Your task to perform on an android device: turn on location history Image 0: 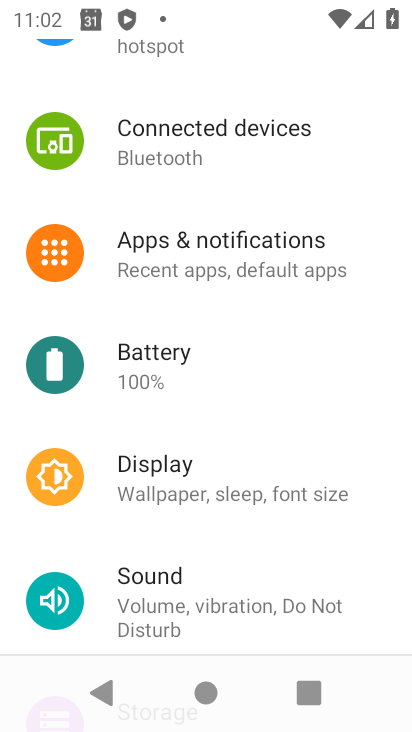
Step 0: press home button
Your task to perform on an android device: turn on location history Image 1: 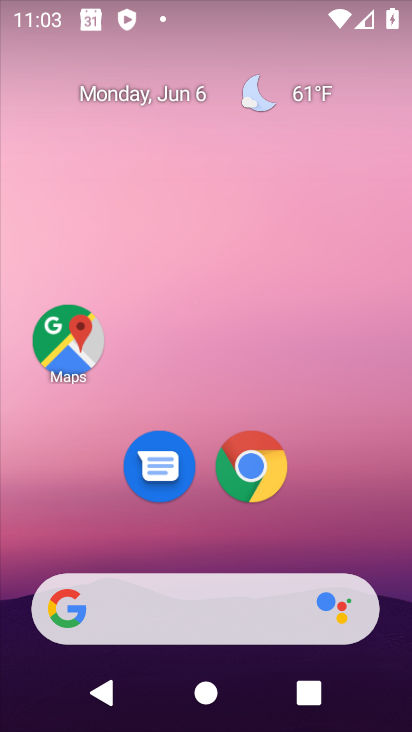
Step 1: click (62, 354)
Your task to perform on an android device: turn on location history Image 2: 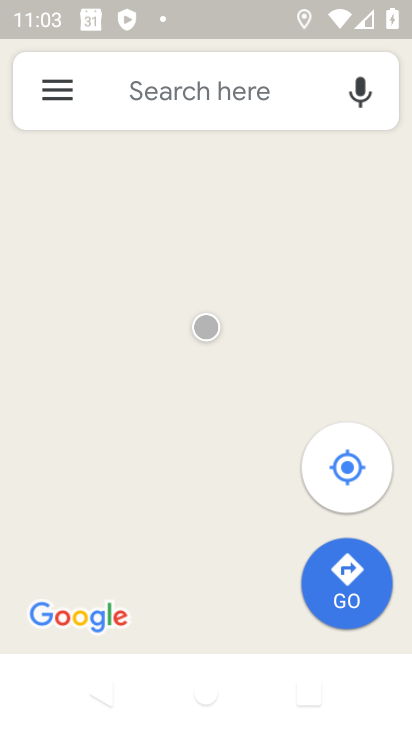
Step 2: click (55, 91)
Your task to perform on an android device: turn on location history Image 3: 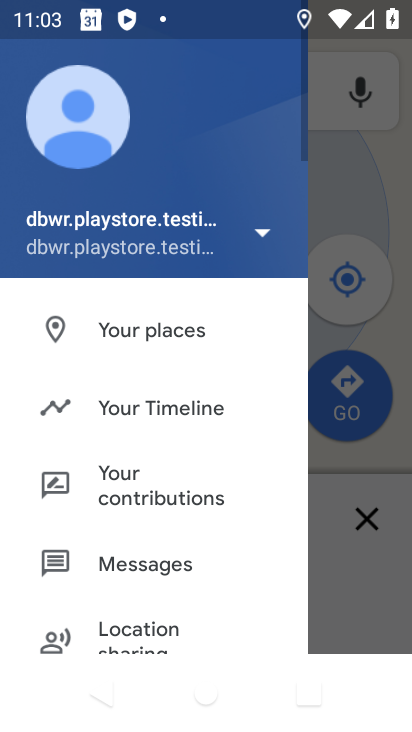
Step 3: click (158, 389)
Your task to perform on an android device: turn on location history Image 4: 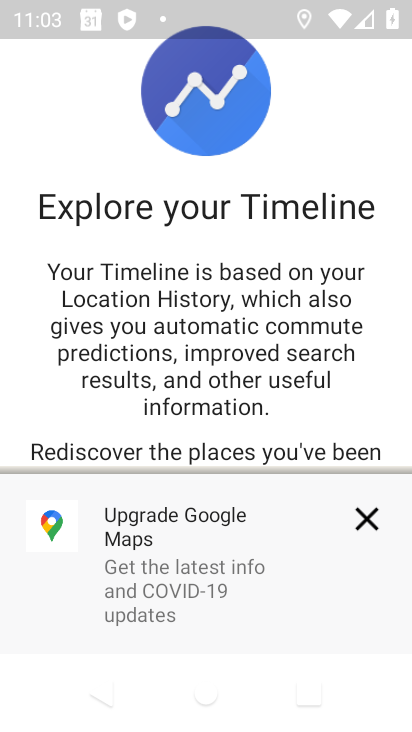
Step 4: click (367, 528)
Your task to perform on an android device: turn on location history Image 5: 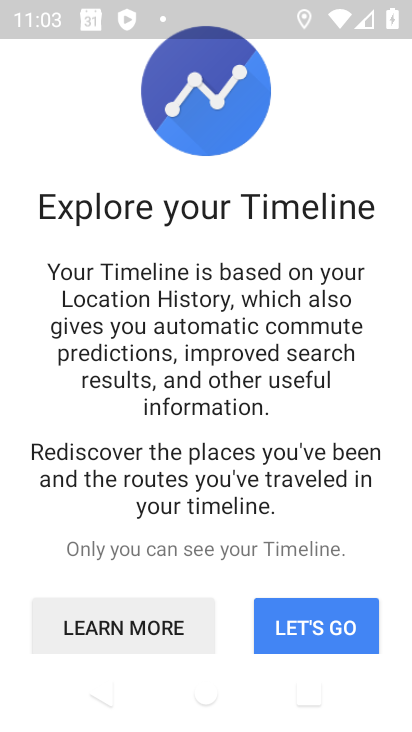
Step 5: click (294, 631)
Your task to perform on an android device: turn on location history Image 6: 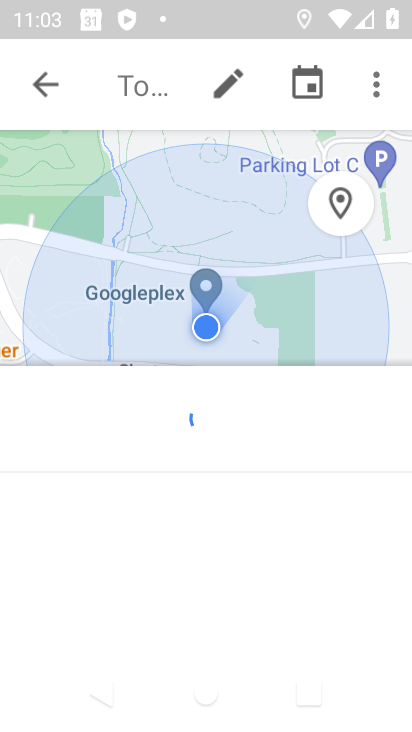
Step 6: click (372, 83)
Your task to perform on an android device: turn on location history Image 7: 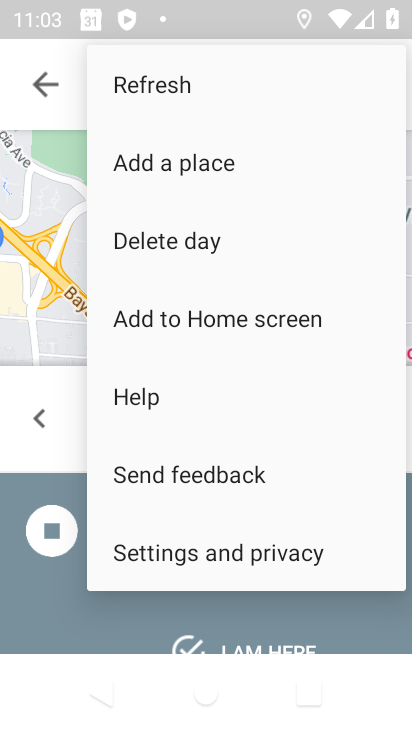
Step 7: click (168, 549)
Your task to perform on an android device: turn on location history Image 8: 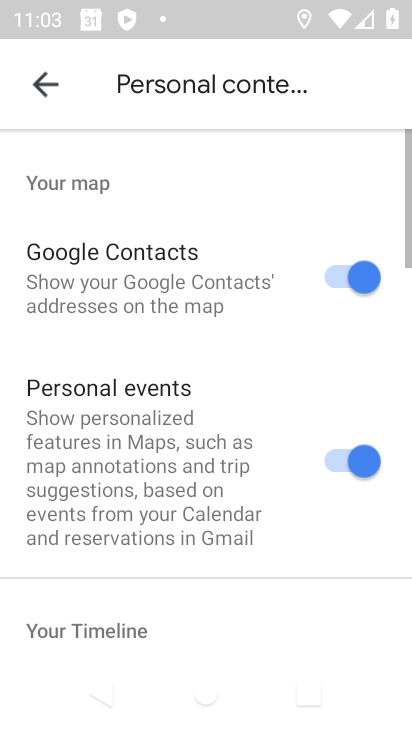
Step 8: drag from (194, 565) to (140, 178)
Your task to perform on an android device: turn on location history Image 9: 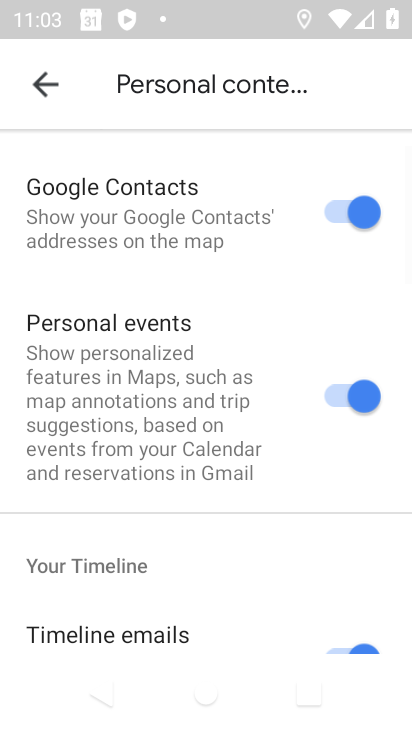
Step 9: drag from (228, 514) to (189, 104)
Your task to perform on an android device: turn on location history Image 10: 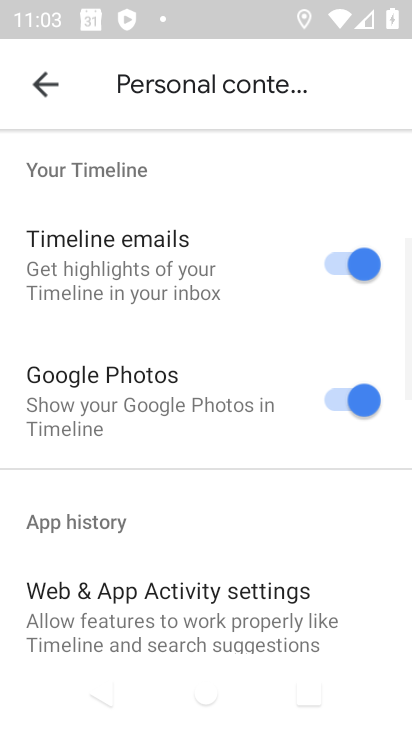
Step 10: drag from (260, 580) to (155, 173)
Your task to perform on an android device: turn on location history Image 11: 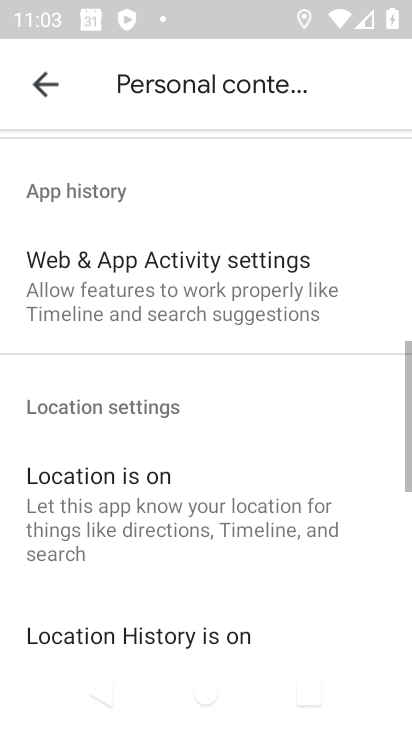
Step 11: drag from (229, 620) to (187, 187)
Your task to perform on an android device: turn on location history Image 12: 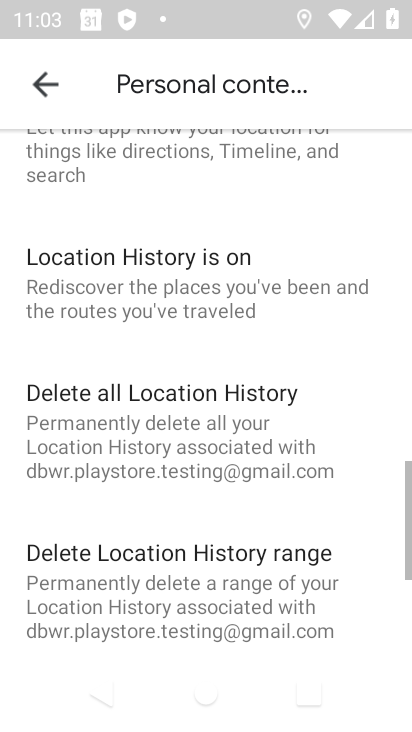
Step 12: drag from (267, 559) to (192, 159)
Your task to perform on an android device: turn on location history Image 13: 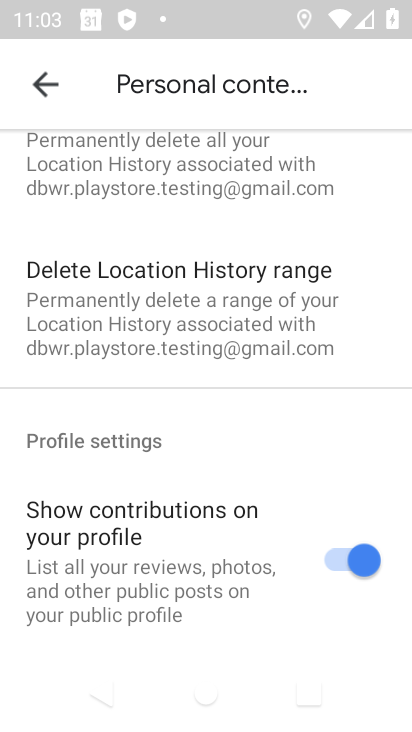
Step 13: drag from (201, 481) to (190, 725)
Your task to perform on an android device: turn on location history Image 14: 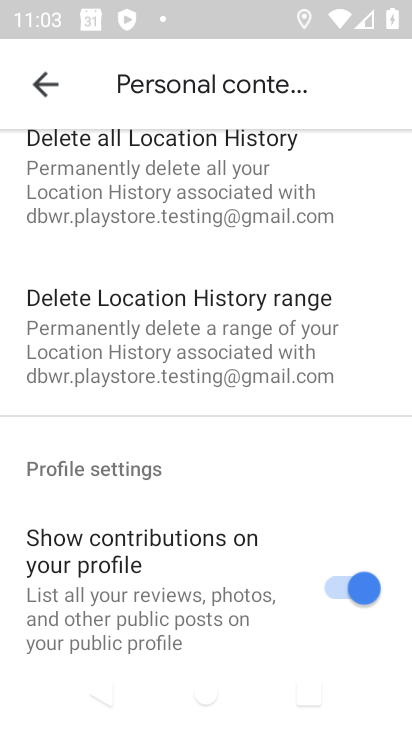
Step 14: drag from (226, 187) to (232, 634)
Your task to perform on an android device: turn on location history Image 15: 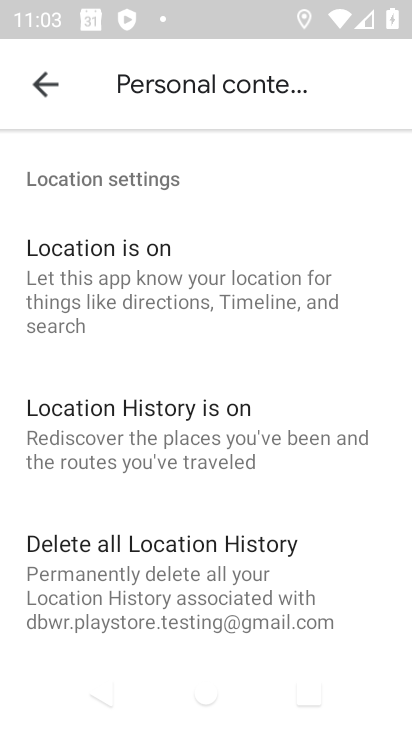
Step 15: click (80, 466)
Your task to perform on an android device: turn on location history Image 16: 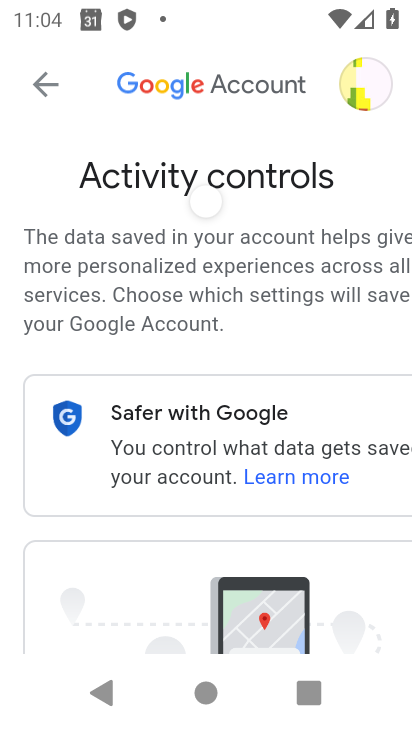
Step 16: task complete